Your task to perform on an android device: Open Google Chrome and open the bookmarks view Image 0: 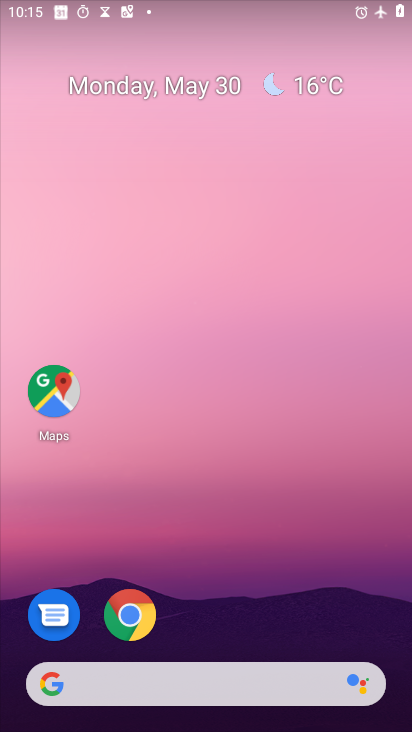
Step 0: drag from (323, 525) to (396, 52)
Your task to perform on an android device: Open Google Chrome and open the bookmarks view Image 1: 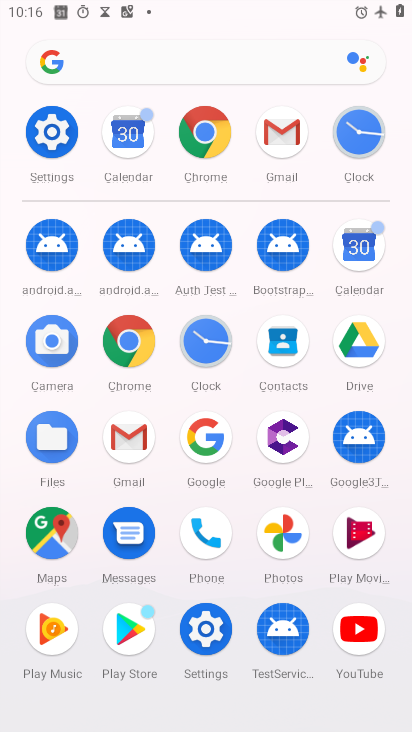
Step 1: click (203, 126)
Your task to perform on an android device: Open Google Chrome and open the bookmarks view Image 2: 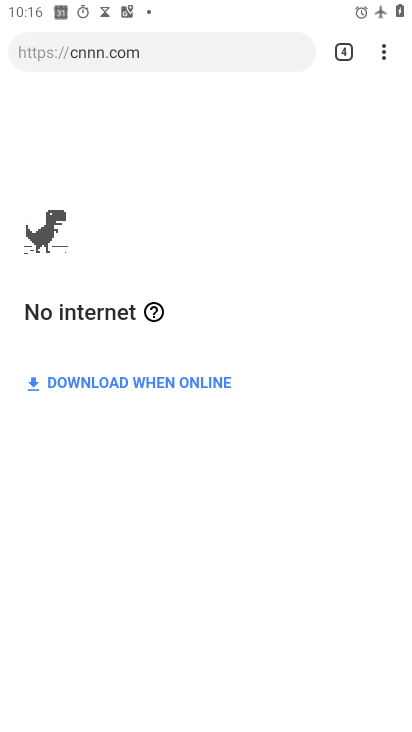
Step 2: task complete